Your task to perform on an android device: Go to privacy settings Image 0: 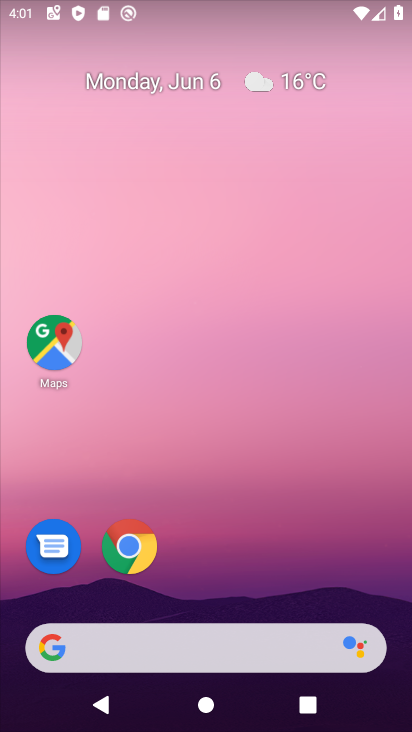
Step 0: drag from (266, 513) to (220, 48)
Your task to perform on an android device: Go to privacy settings Image 1: 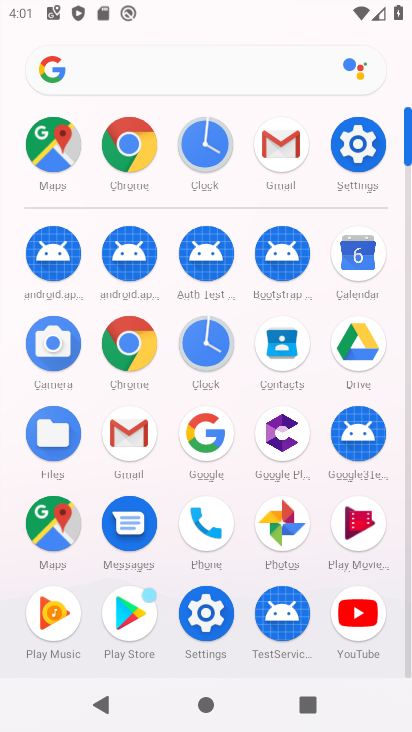
Step 1: click (354, 149)
Your task to perform on an android device: Go to privacy settings Image 2: 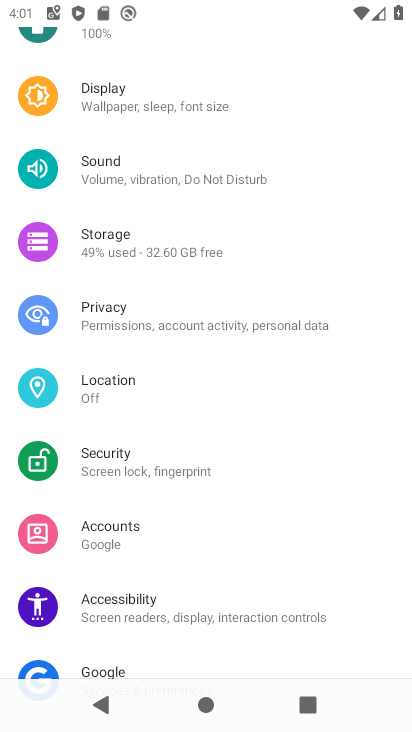
Step 2: click (135, 312)
Your task to perform on an android device: Go to privacy settings Image 3: 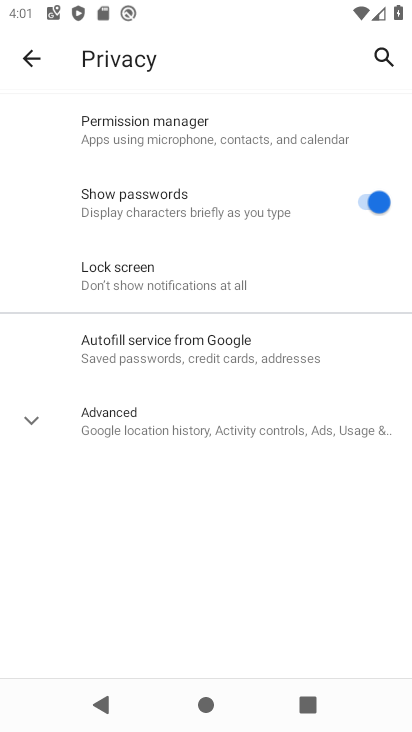
Step 3: task complete